Your task to perform on an android device: Search for Mexican restaurants on Maps Image 0: 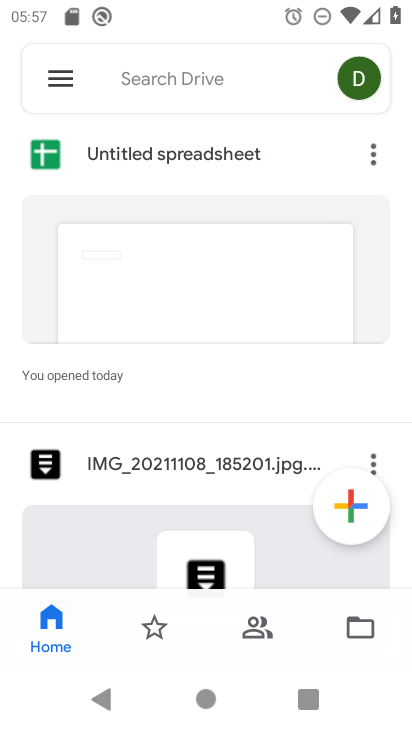
Step 0: press home button
Your task to perform on an android device: Search for Mexican restaurants on Maps Image 1: 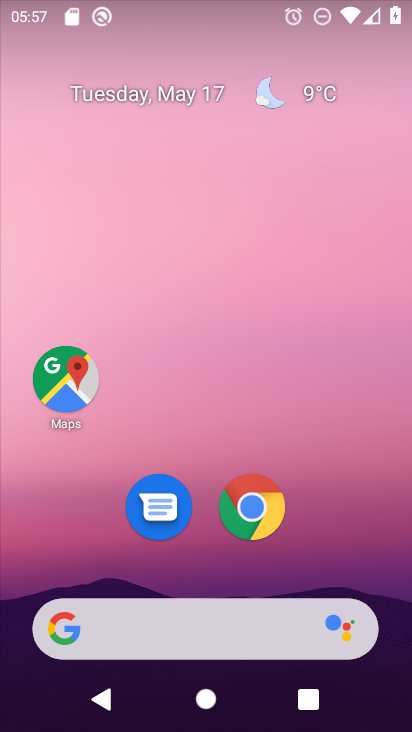
Step 1: click (62, 372)
Your task to perform on an android device: Search for Mexican restaurants on Maps Image 2: 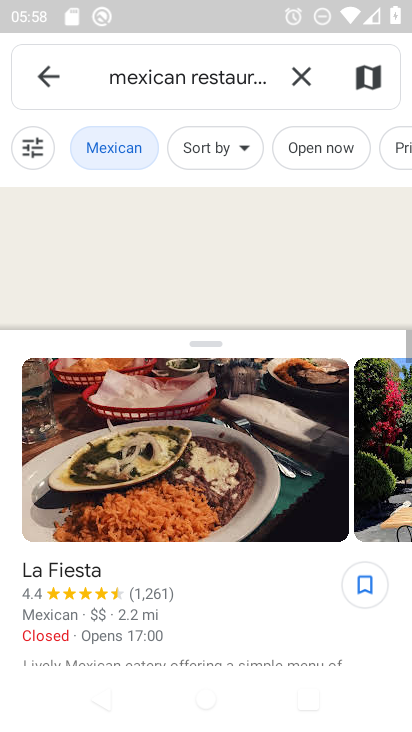
Step 2: task complete